Your task to perform on an android device: toggle sleep mode Image 0: 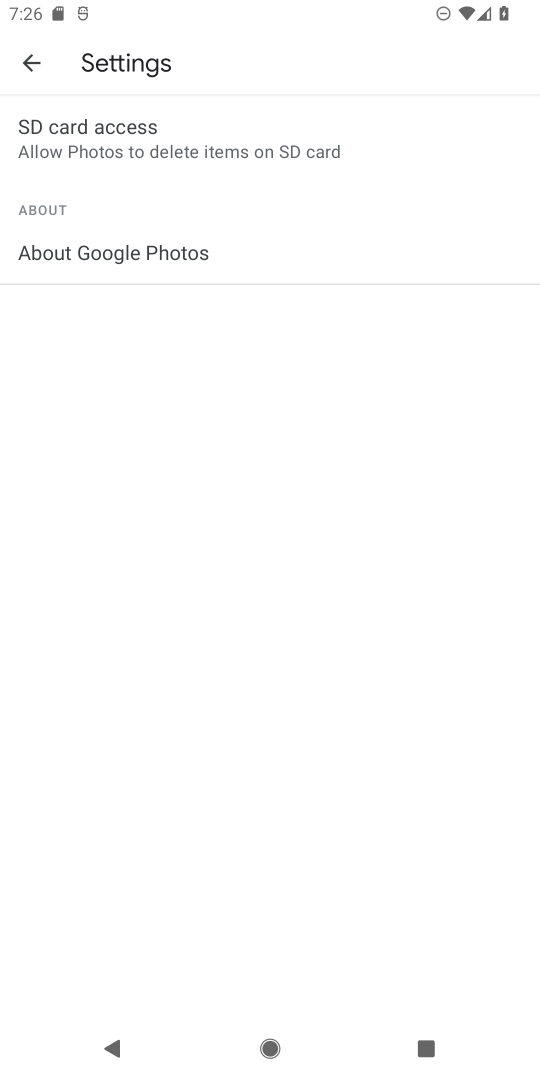
Step 0: press home button
Your task to perform on an android device: toggle sleep mode Image 1: 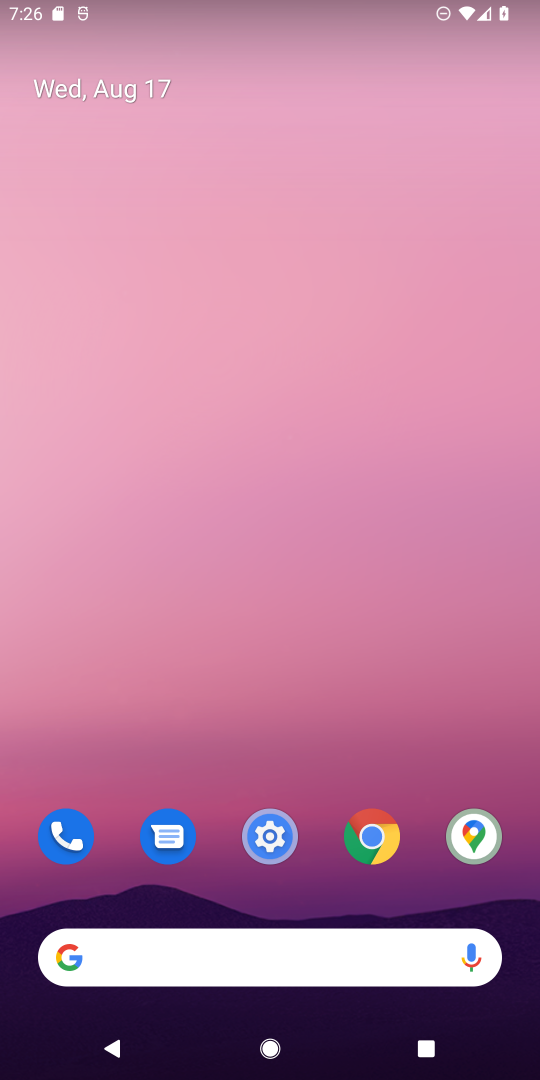
Step 1: drag from (232, 766) to (284, 363)
Your task to perform on an android device: toggle sleep mode Image 2: 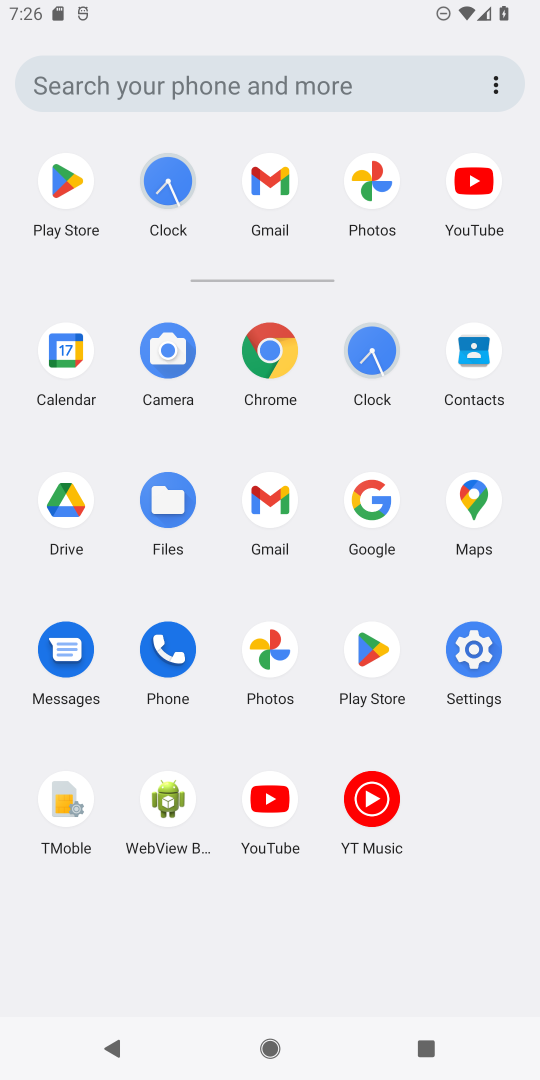
Step 2: click (464, 656)
Your task to perform on an android device: toggle sleep mode Image 3: 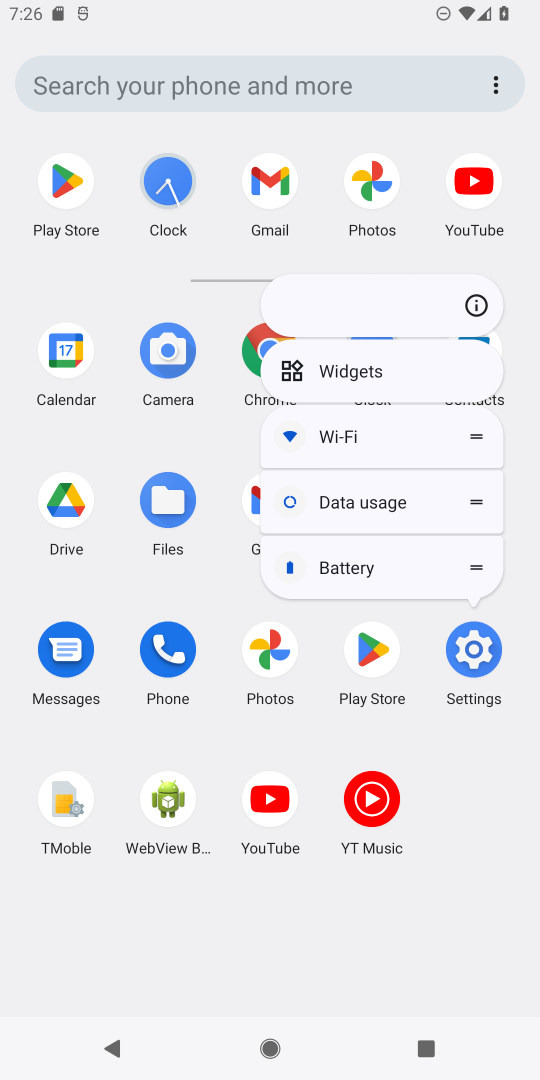
Step 3: click (461, 664)
Your task to perform on an android device: toggle sleep mode Image 4: 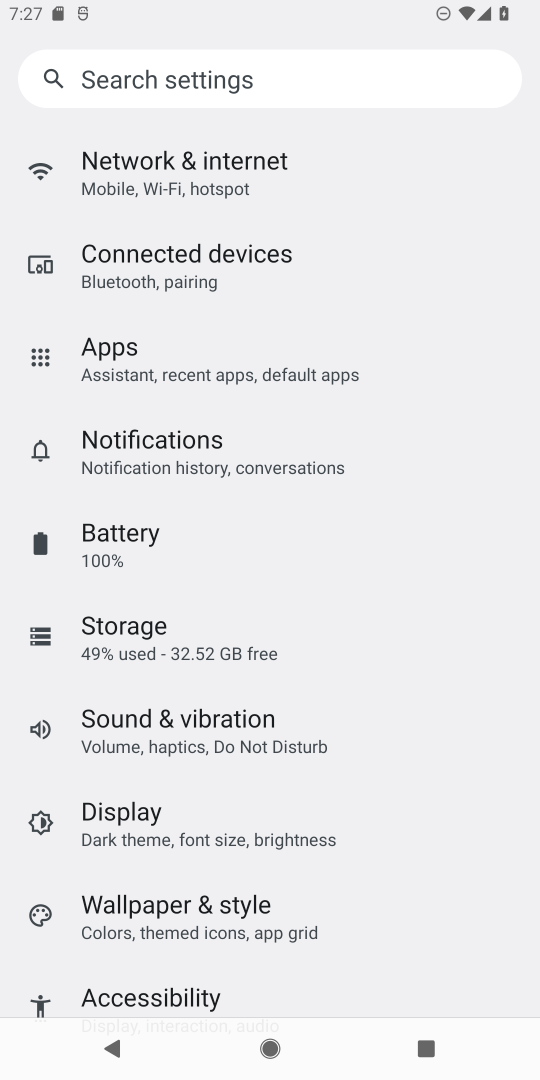
Step 4: task complete